Your task to perform on an android device: visit the assistant section in the google photos Image 0: 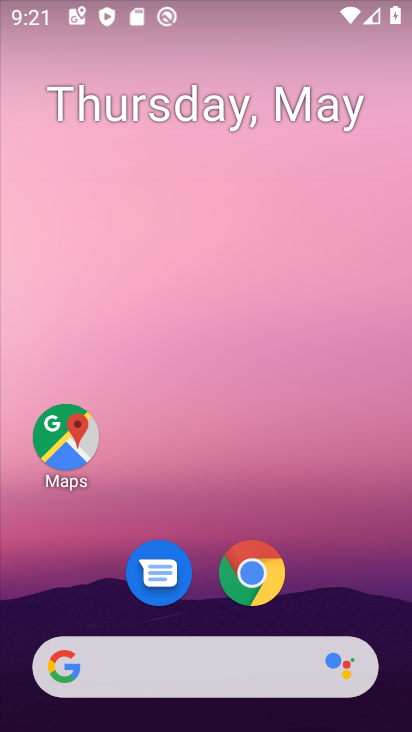
Step 0: drag from (293, 547) to (283, 115)
Your task to perform on an android device: visit the assistant section in the google photos Image 1: 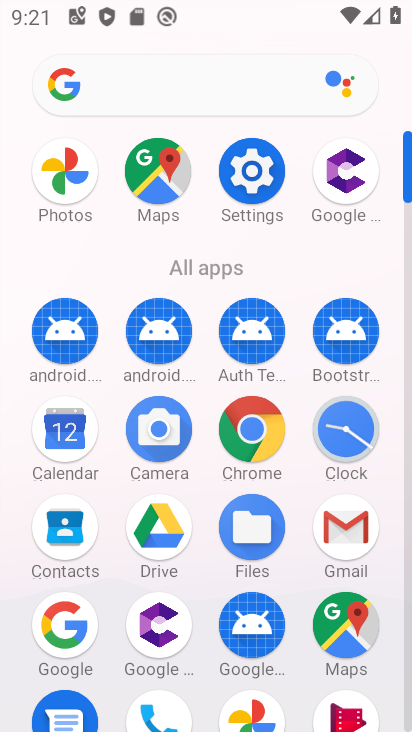
Step 1: click (58, 176)
Your task to perform on an android device: visit the assistant section in the google photos Image 2: 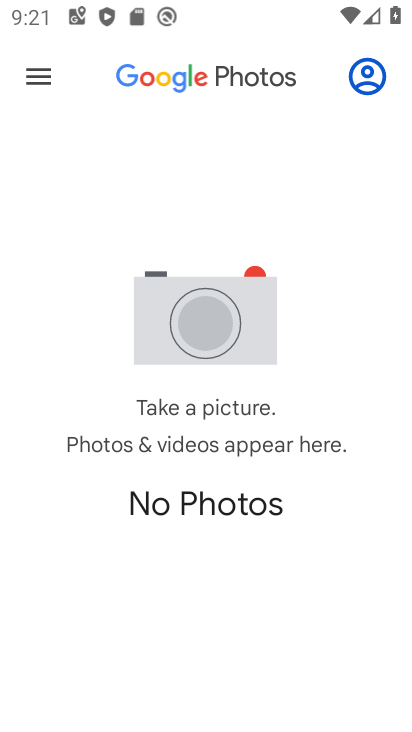
Step 2: click (45, 80)
Your task to perform on an android device: visit the assistant section in the google photos Image 3: 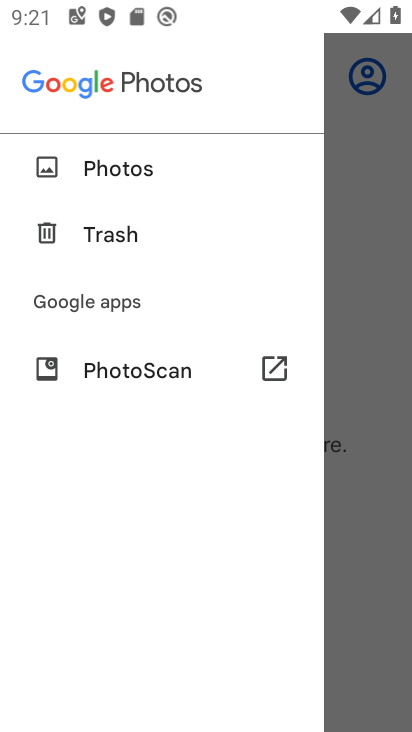
Step 3: click (133, 179)
Your task to perform on an android device: visit the assistant section in the google photos Image 4: 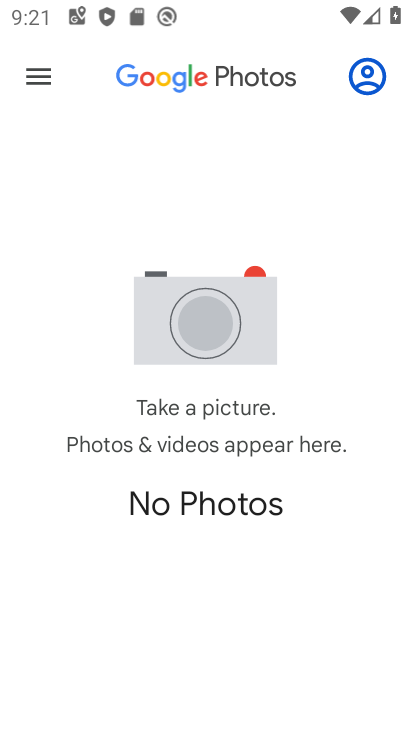
Step 4: task complete